Your task to perform on an android device: check battery use Image 0: 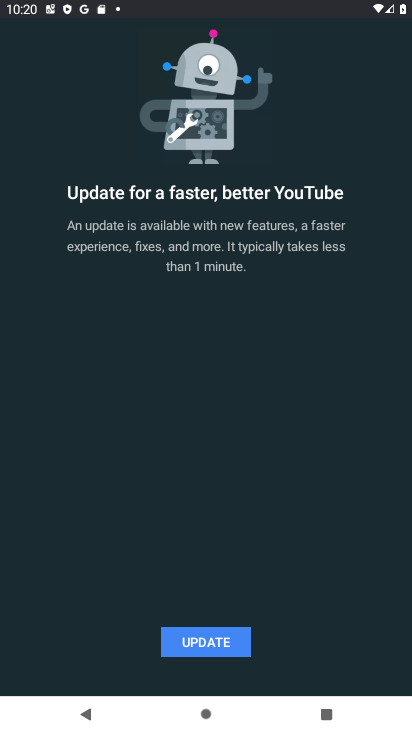
Step 0: press home button
Your task to perform on an android device: check battery use Image 1: 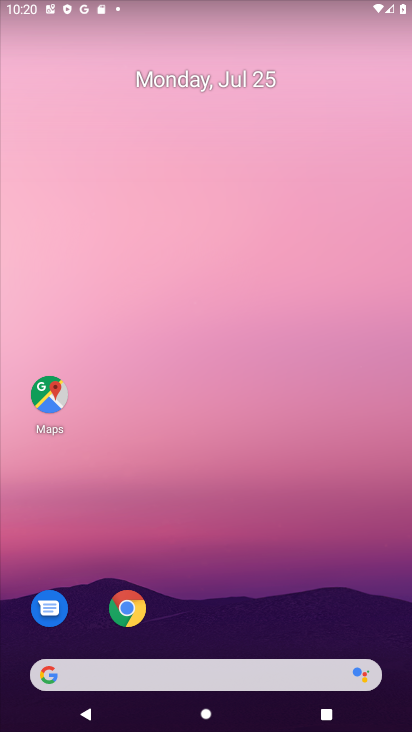
Step 1: drag from (163, 623) to (191, 181)
Your task to perform on an android device: check battery use Image 2: 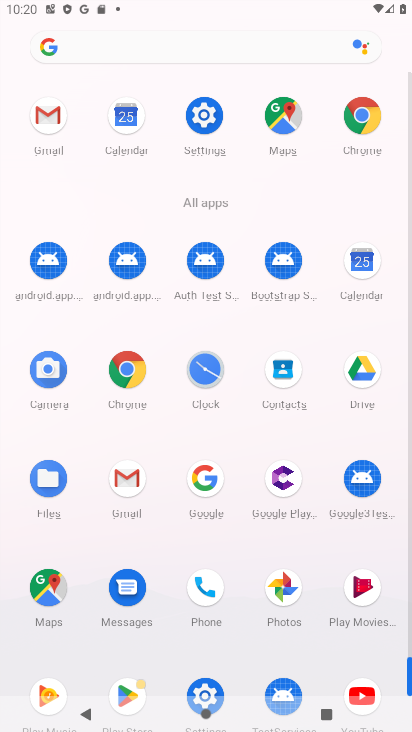
Step 2: click (210, 110)
Your task to perform on an android device: check battery use Image 3: 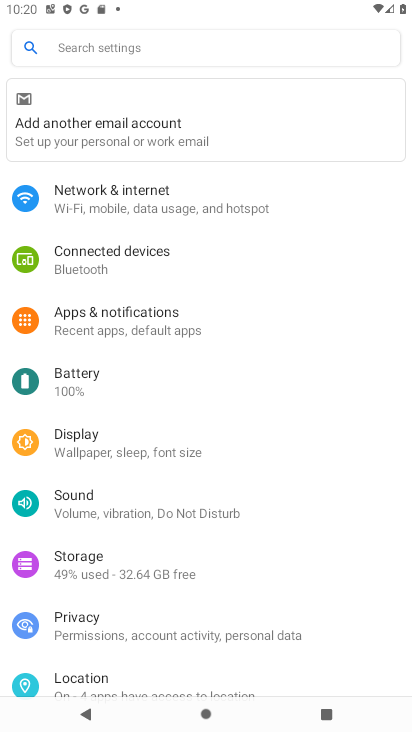
Step 3: click (88, 388)
Your task to perform on an android device: check battery use Image 4: 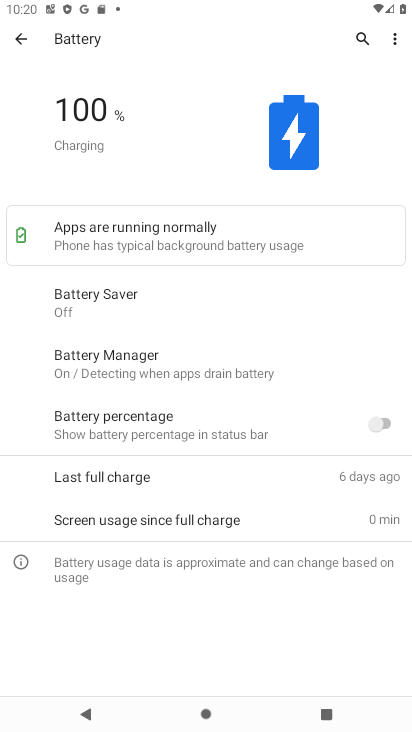
Step 4: click (169, 359)
Your task to perform on an android device: check battery use Image 5: 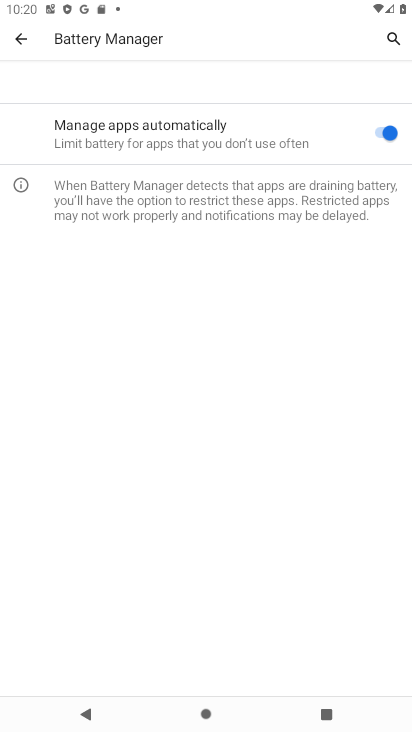
Step 5: click (19, 21)
Your task to perform on an android device: check battery use Image 6: 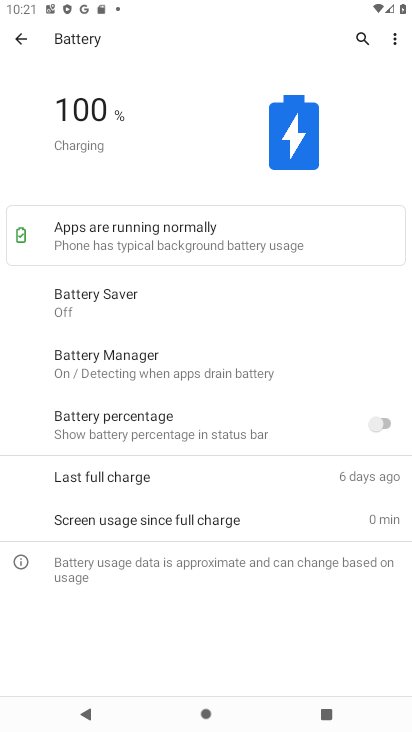
Step 6: task complete